Your task to perform on an android device: search for starred emails in the gmail app Image 0: 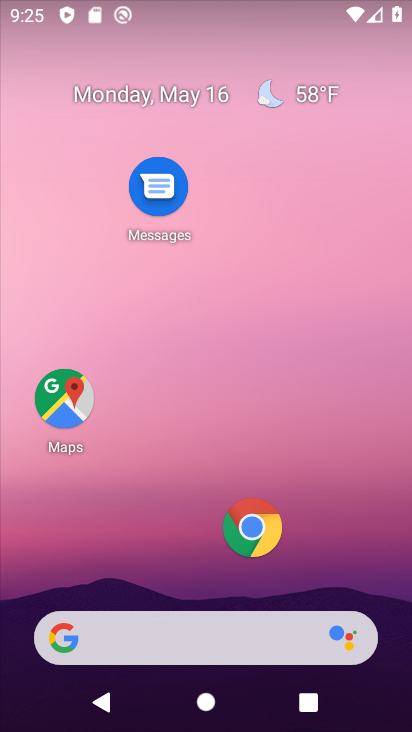
Step 0: drag from (187, 553) to (193, 45)
Your task to perform on an android device: search for starred emails in the gmail app Image 1: 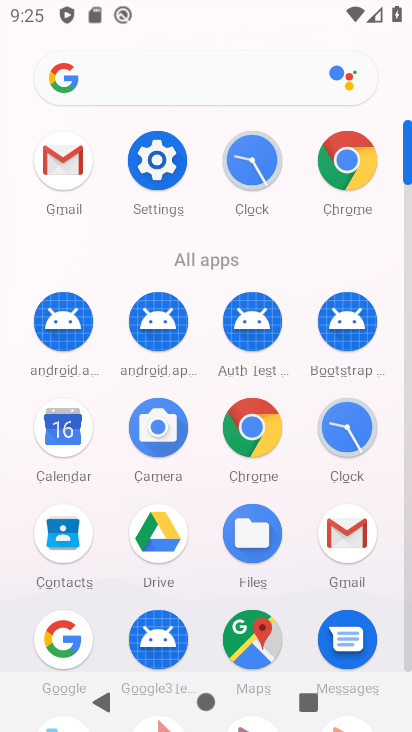
Step 1: click (61, 145)
Your task to perform on an android device: search for starred emails in the gmail app Image 2: 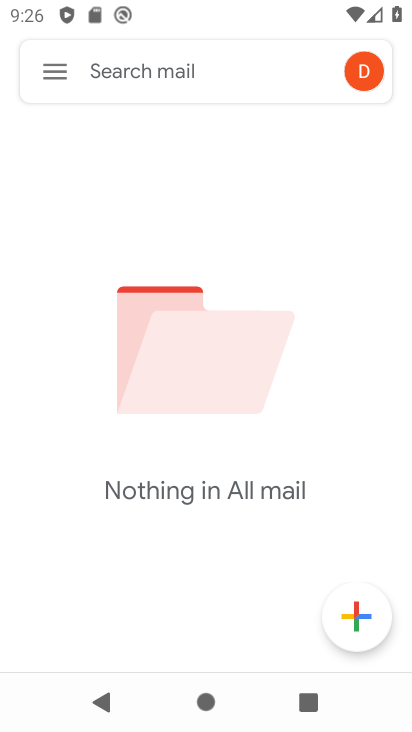
Step 2: click (52, 75)
Your task to perform on an android device: search for starred emails in the gmail app Image 3: 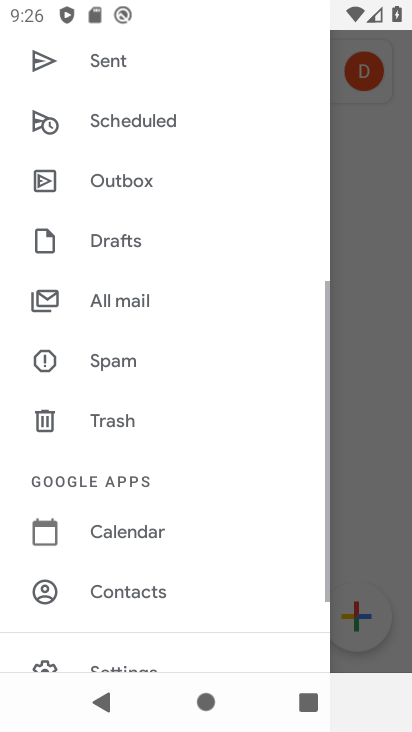
Step 3: drag from (175, 163) to (231, 533)
Your task to perform on an android device: search for starred emails in the gmail app Image 4: 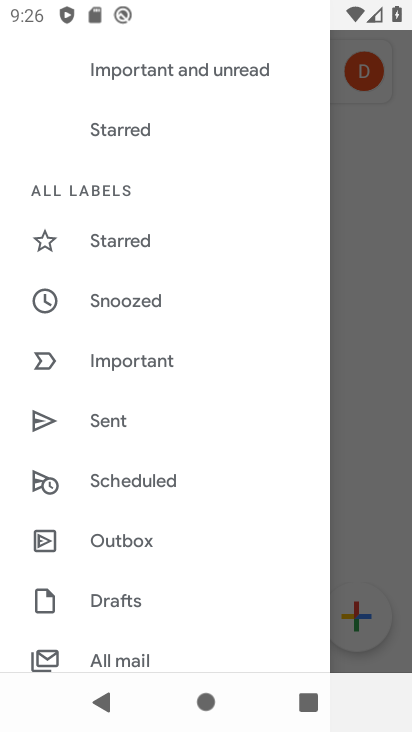
Step 4: click (124, 248)
Your task to perform on an android device: search for starred emails in the gmail app Image 5: 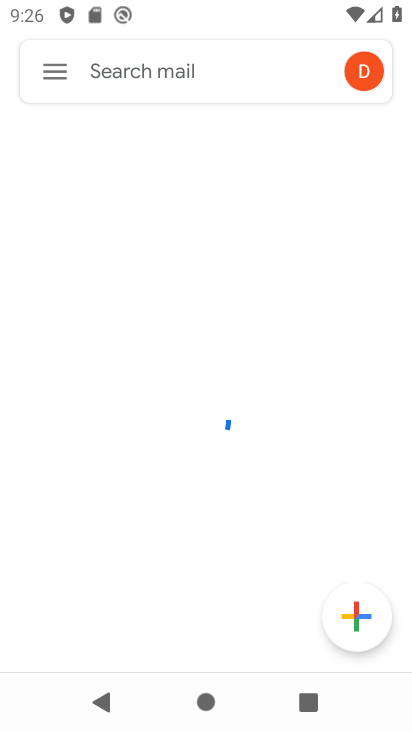
Step 5: task complete